Your task to perform on an android device: move an email to a new category in the gmail app Image 0: 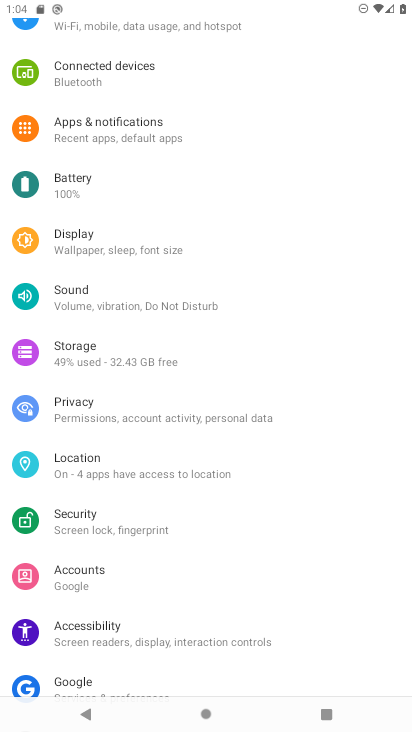
Step 0: press home button
Your task to perform on an android device: move an email to a new category in the gmail app Image 1: 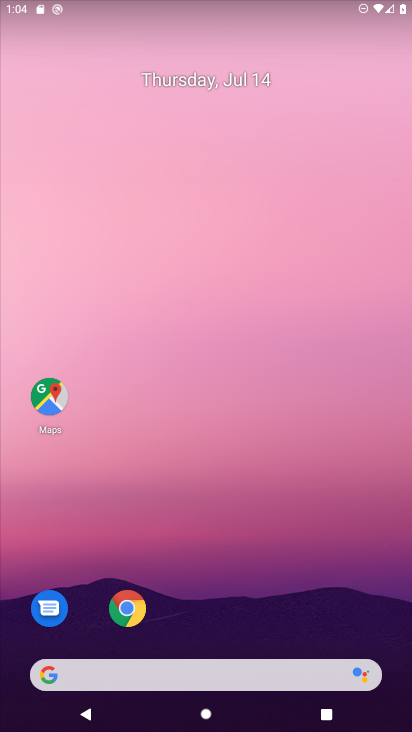
Step 1: drag from (229, 655) to (224, 109)
Your task to perform on an android device: move an email to a new category in the gmail app Image 2: 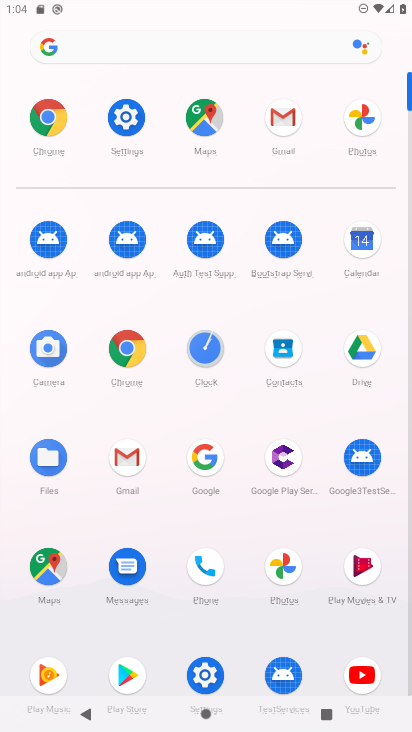
Step 2: click (133, 457)
Your task to perform on an android device: move an email to a new category in the gmail app Image 3: 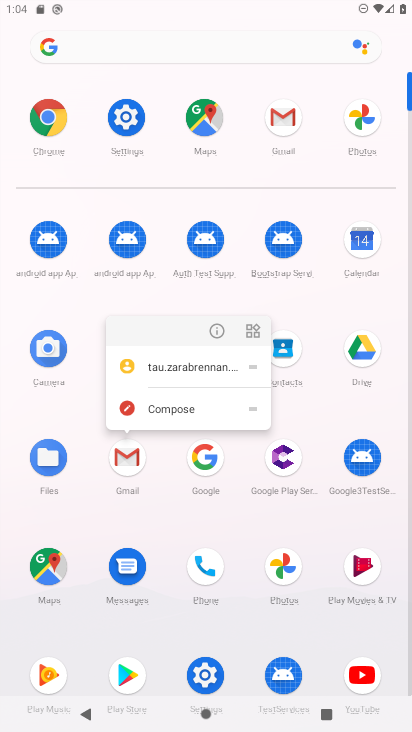
Step 3: click (132, 457)
Your task to perform on an android device: move an email to a new category in the gmail app Image 4: 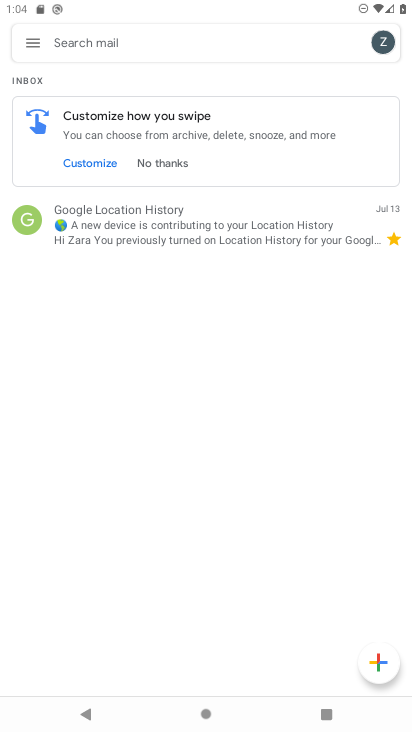
Step 4: click (246, 237)
Your task to perform on an android device: move an email to a new category in the gmail app Image 5: 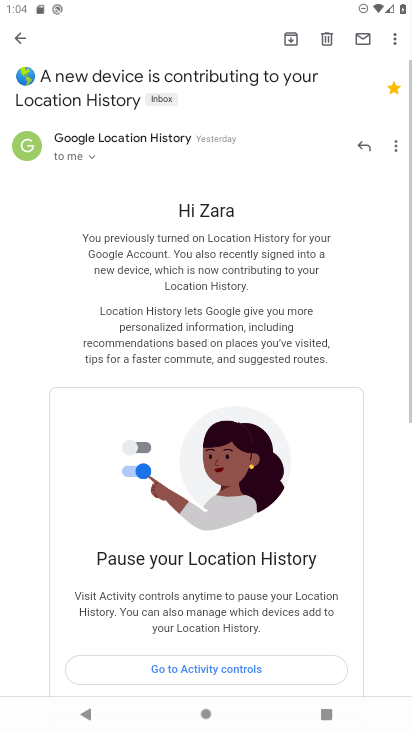
Step 5: click (393, 36)
Your task to perform on an android device: move an email to a new category in the gmail app Image 6: 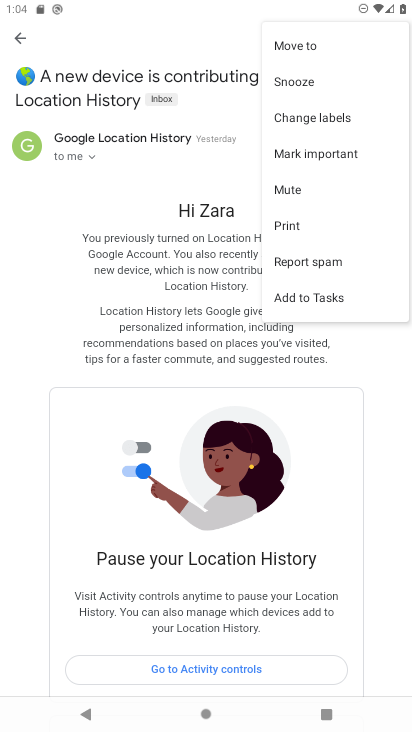
Step 6: click (295, 48)
Your task to perform on an android device: move an email to a new category in the gmail app Image 7: 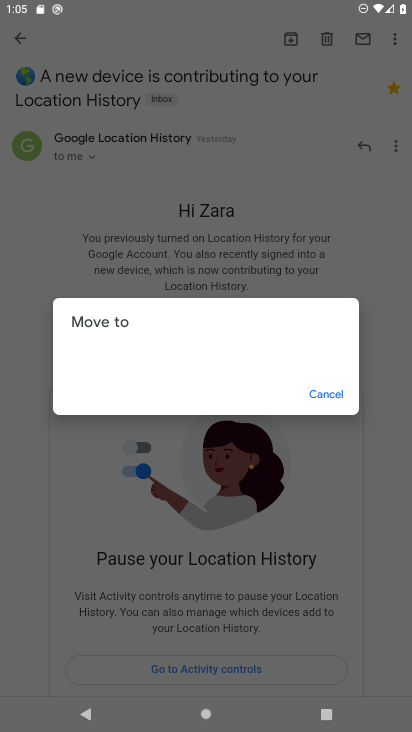
Step 7: click (337, 396)
Your task to perform on an android device: move an email to a new category in the gmail app Image 8: 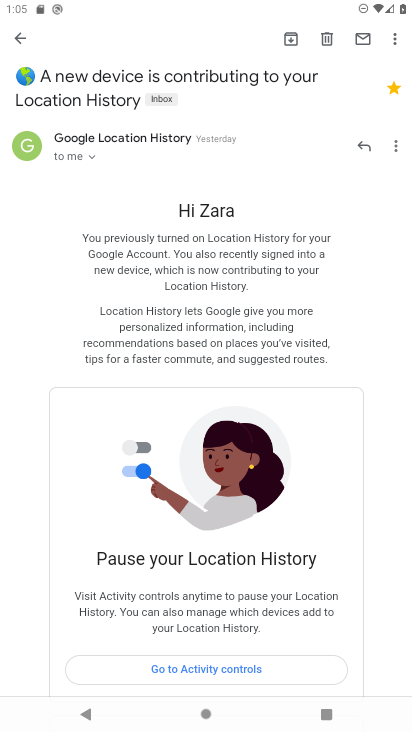
Step 8: task complete